Your task to perform on an android device: Show me the alarms in the clock app Image 0: 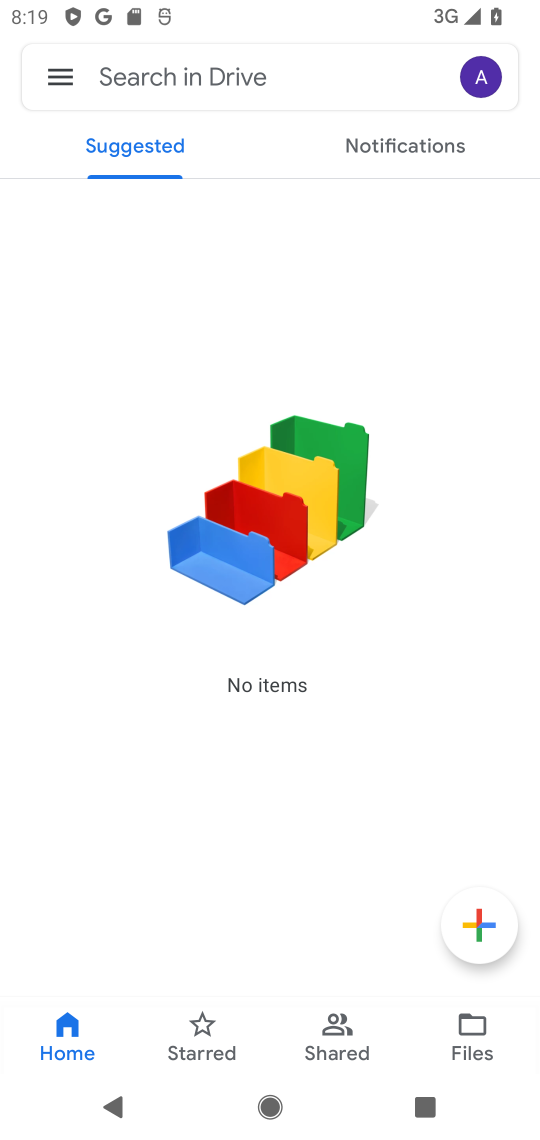
Step 0: press home button
Your task to perform on an android device: Show me the alarms in the clock app Image 1: 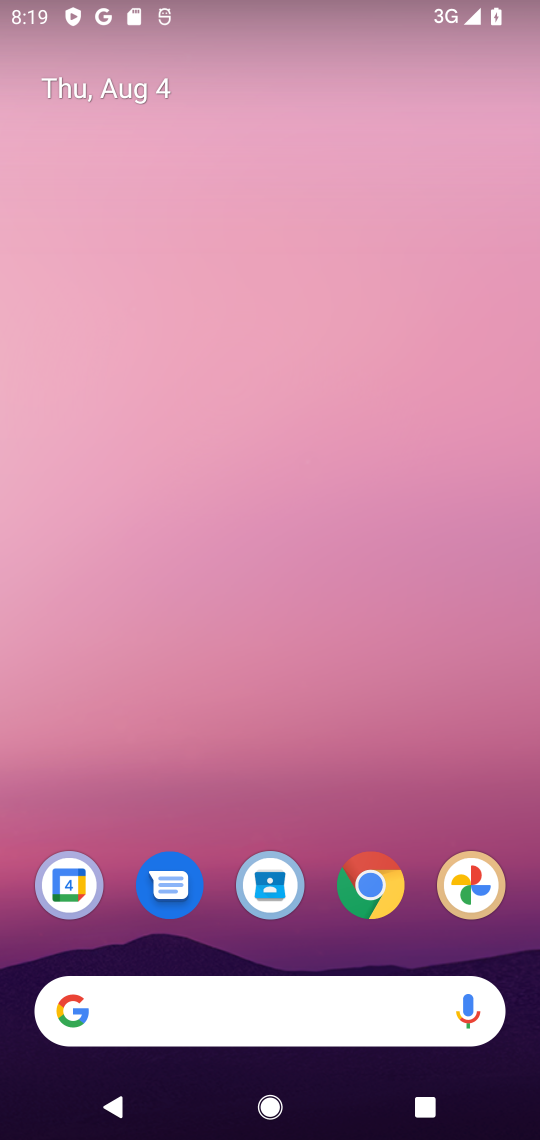
Step 1: drag from (324, 852) to (301, 44)
Your task to perform on an android device: Show me the alarms in the clock app Image 2: 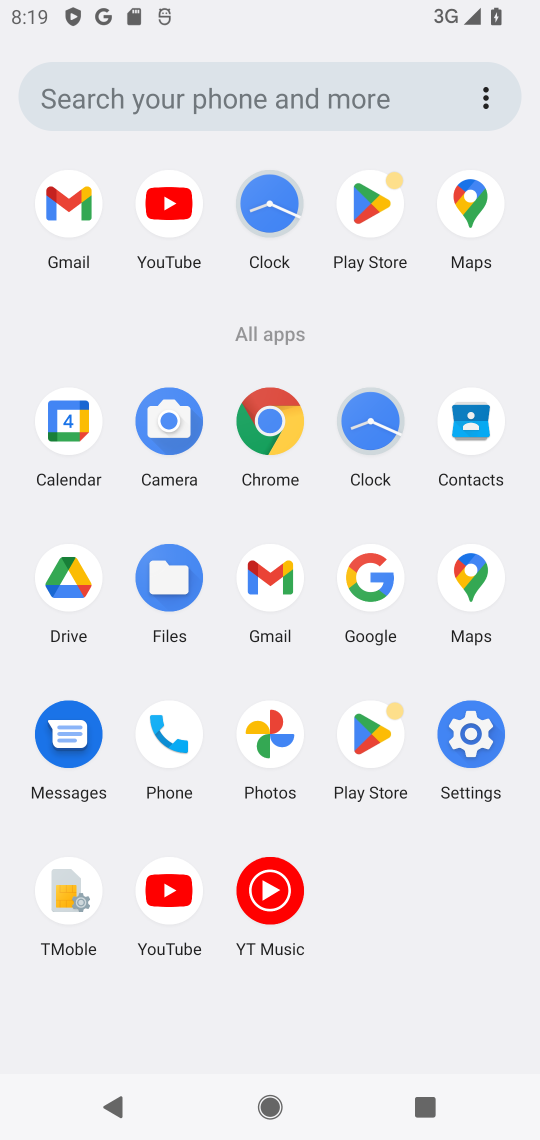
Step 2: click (370, 408)
Your task to perform on an android device: Show me the alarms in the clock app Image 3: 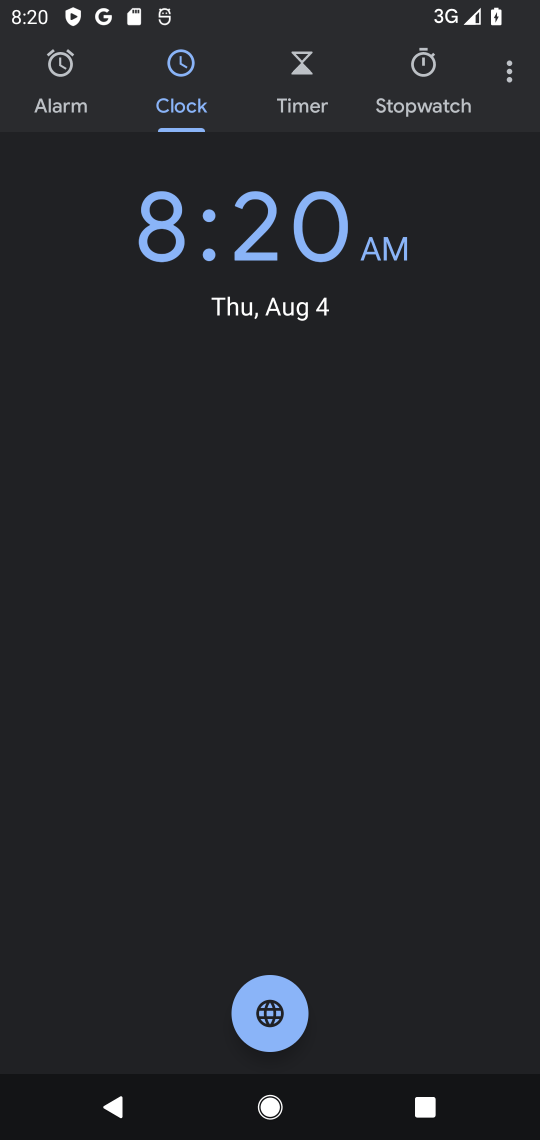
Step 3: click (83, 81)
Your task to perform on an android device: Show me the alarms in the clock app Image 4: 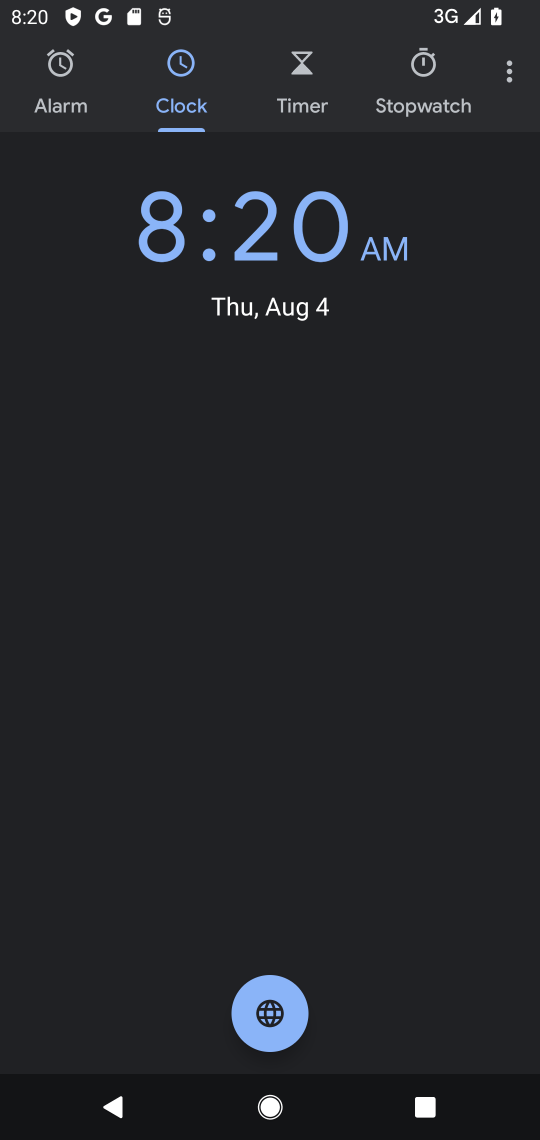
Step 4: click (71, 80)
Your task to perform on an android device: Show me the alarms in the clock app Image 5: 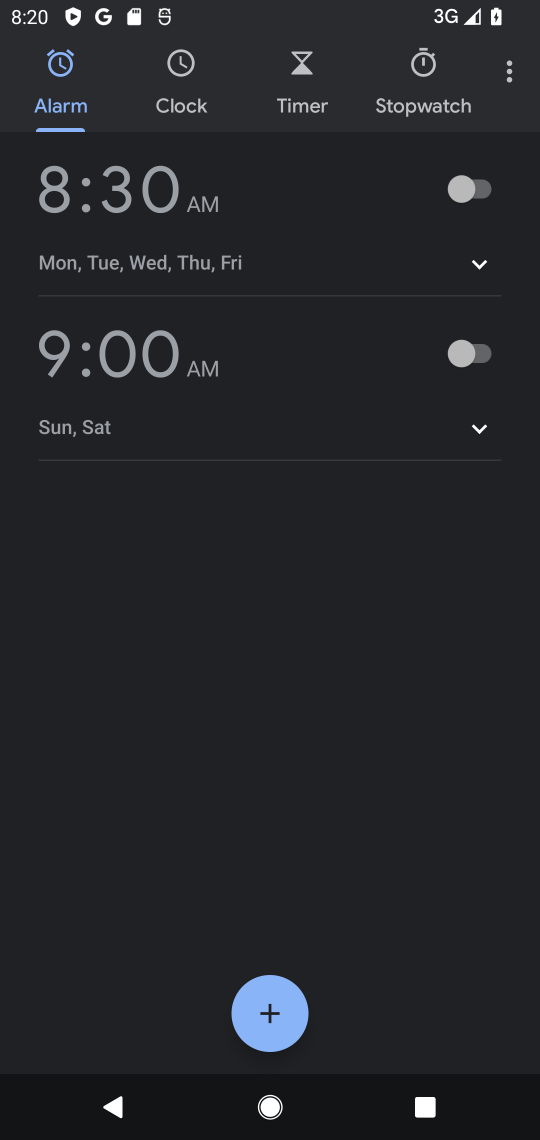
Step 5: click (462, 177)
Your task to perform on an android device: Show me the alarms in the clock app Image 6: 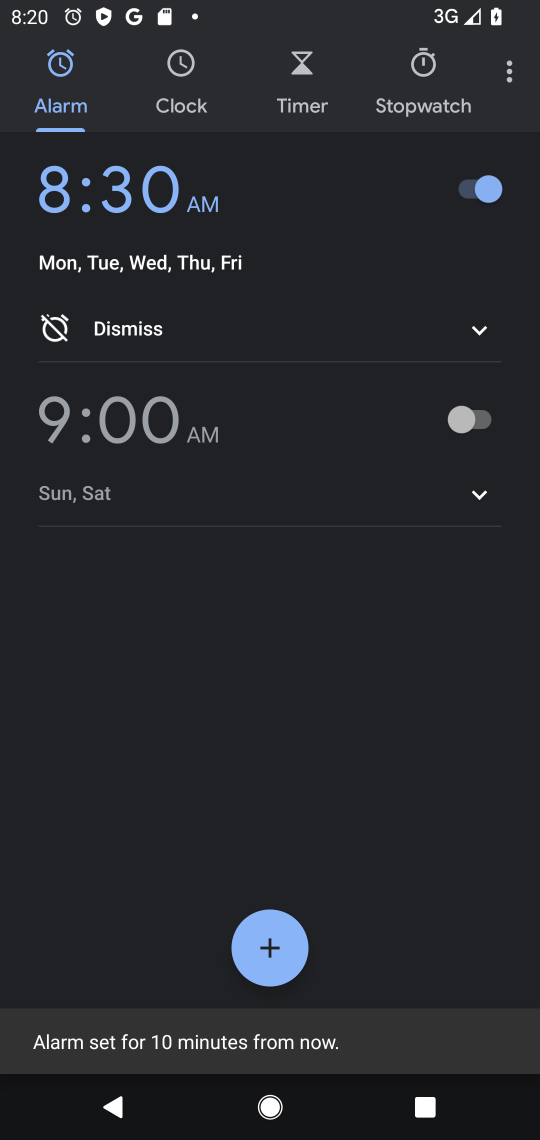
Step 6: task complete